Your task to perform on an android device: Open privacy settings Image 0: 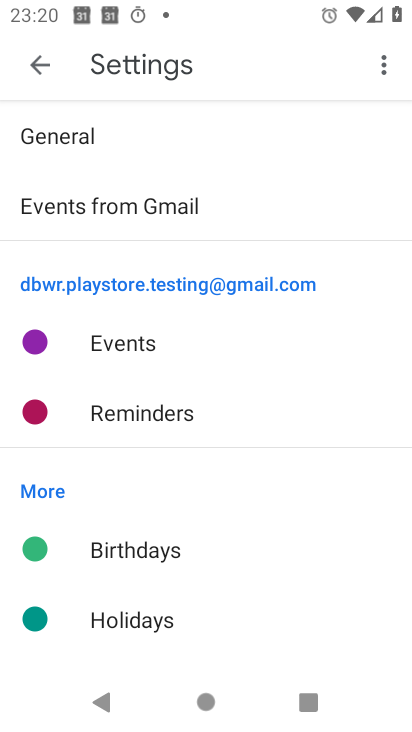
Step 0: press home button
Your task to perform on an android device: Open privacy settings Image 1: 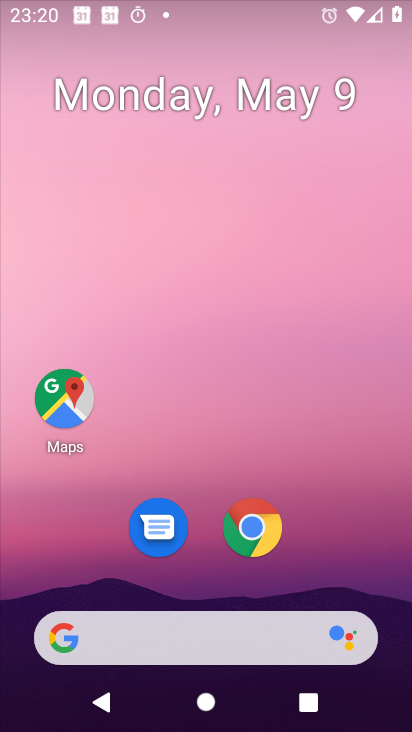
Step 1: drag from (201, 582) to (212, 70)
Your task to perform on an android device: Open privacy settings Image 2: 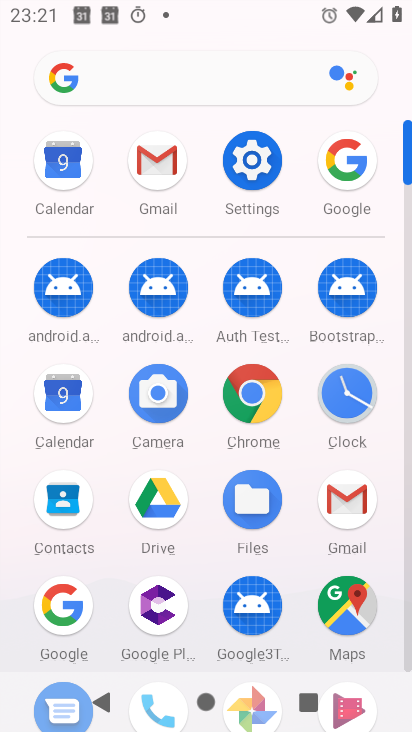
Step 2: click (251, 166)
Your task to perform on an android device: Open privacy settings Image 3: 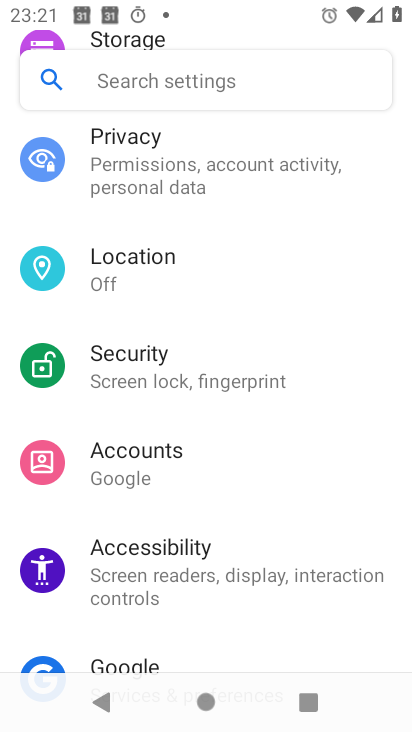
Step 3: click (147, 156)
Your task to perform on an android device: Open privacy settings Image 4: 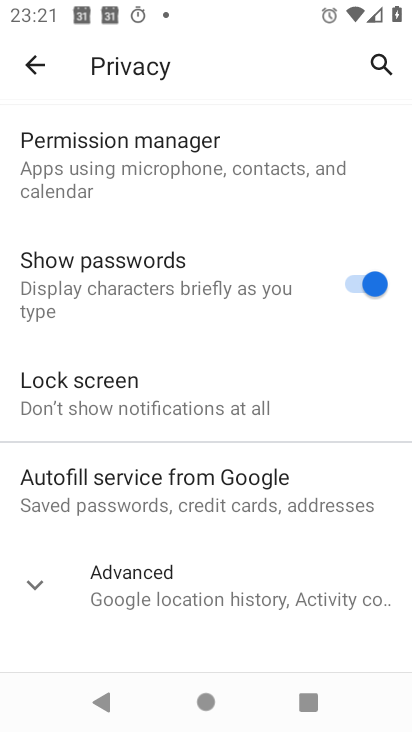
Step 4: task complete